Your task to perform on an android device: Go to Android settings Image 0: 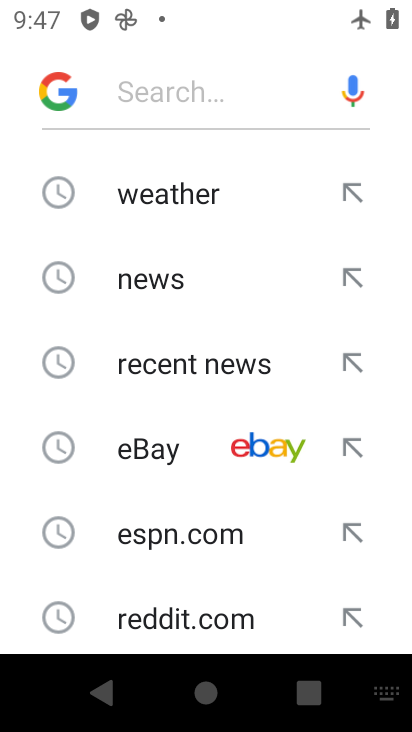
Step 0: press home button
Your task to perform on an android device: Go to Android settings Image 1: 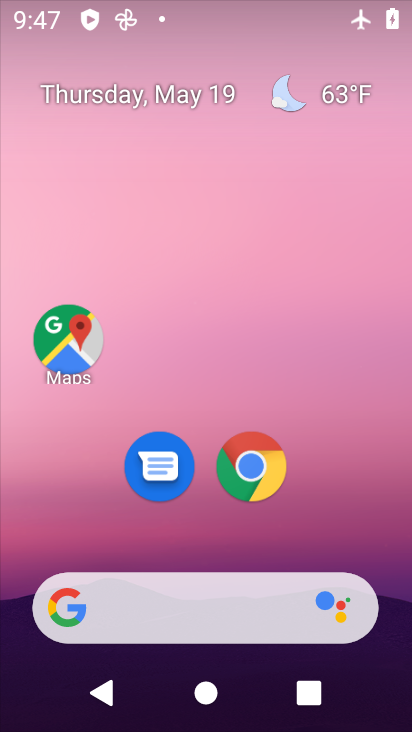
Step 1: drag from (380, 629) to (305, 81)
Your task to perform on an android device: Go to Android settings Image 2: 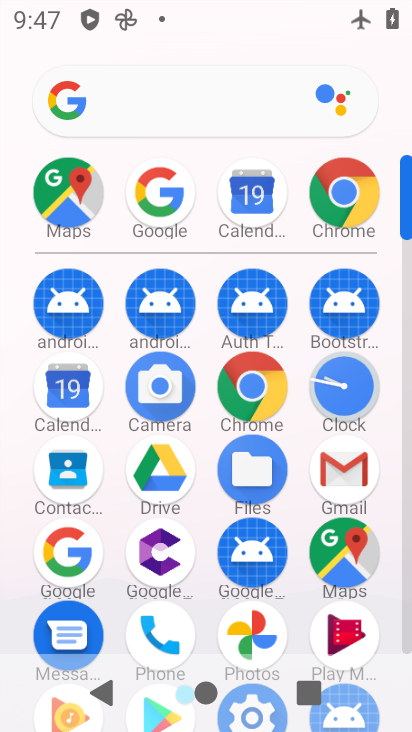
Step 2: drag from (225, 641) to (225, 171)
Your task to perform on an android device: Go to Android settings Image 3: 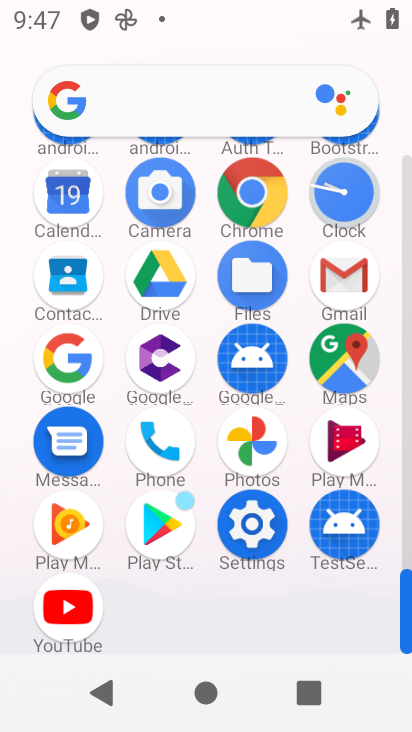
Step 3: click (276, 541)
Your task to perform on an android device: Go to Android settings Image 4: 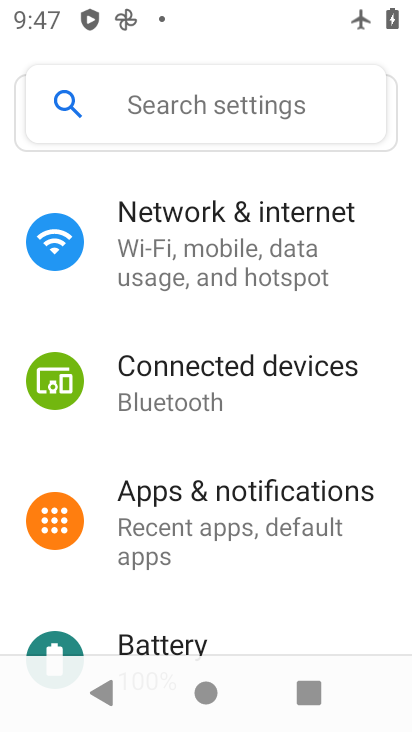
Step 4: drag from (201, 623) to (225, 96)
Your task to perform on an android device: Go to Android settings Image 5: 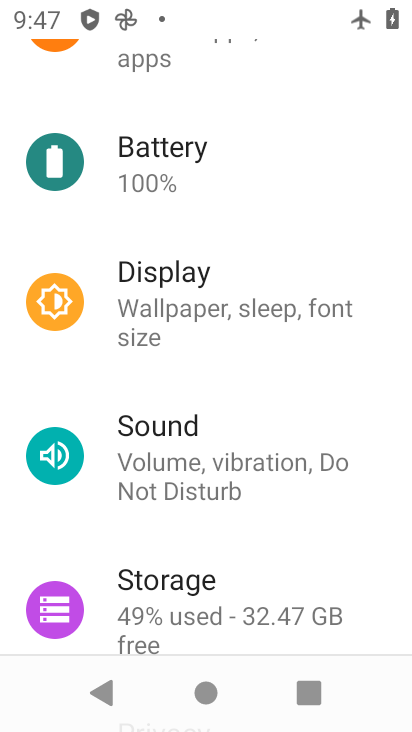
Step 5: drag from (200, 585) to (259, 80)
Your task to perform on an android device: Go to Android settings Image 6: 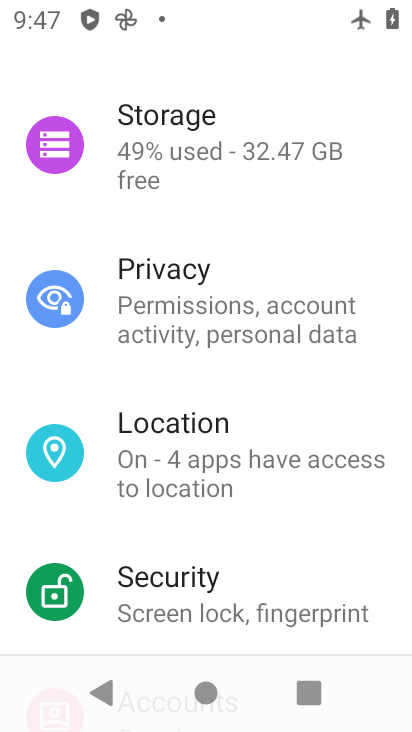
Step 6: drag from (212, 588) to (293, 108)
Your task to perform on an android device: Go to Android settings Image 7: 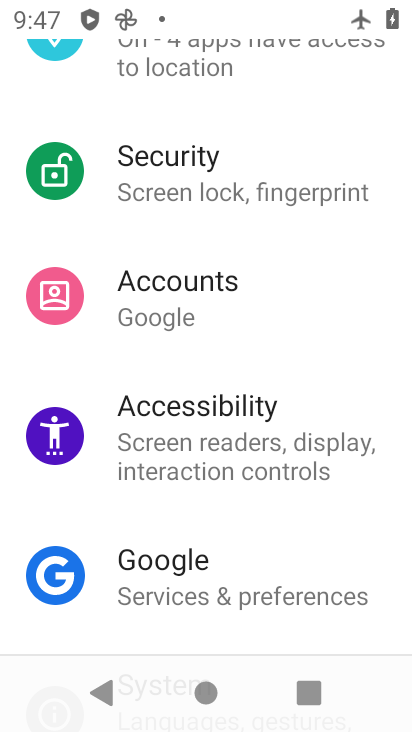
Step 7: drag from (122, 622) to (161, 40)
Your task to perform on an android device: Go to Android settings Image 8: 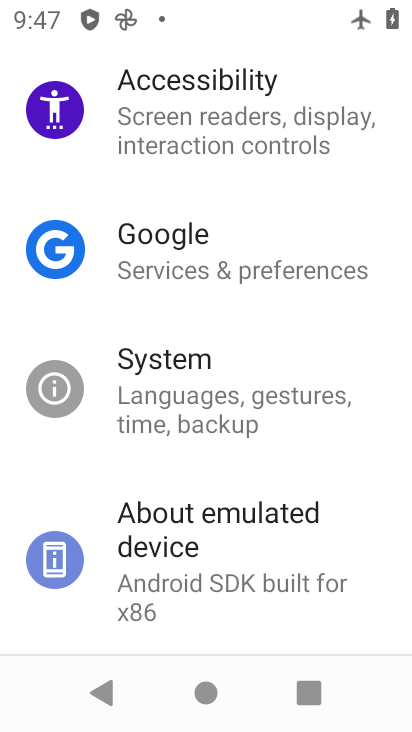
Step 8: click (182, 574)
Your task to perform on an android device: Go to Android settings Image 9: 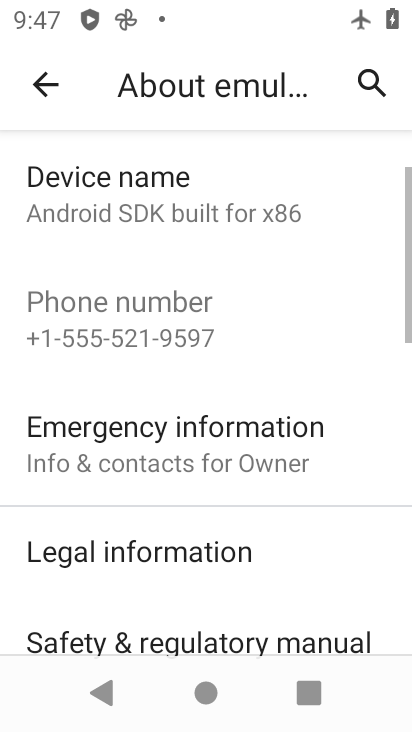
Step 9: drag from (182, 574) to (246, 133)
Your task to perform on an android device: Go to Android settings Image 10: 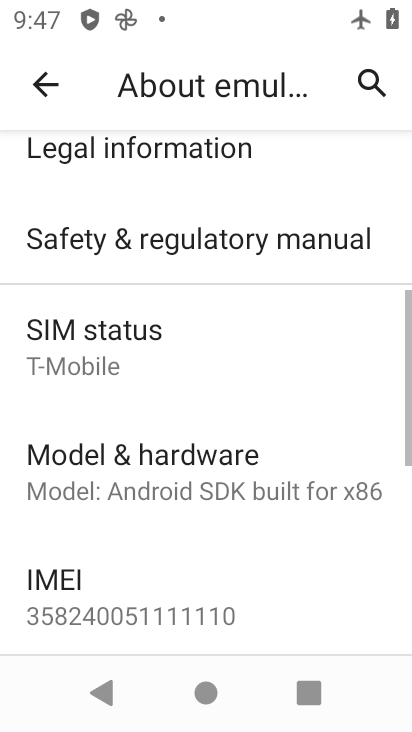
Step 10: drag from (196, 528) to (236, 135)
Your task to perform on an android device: Go to Android settings Image 11: 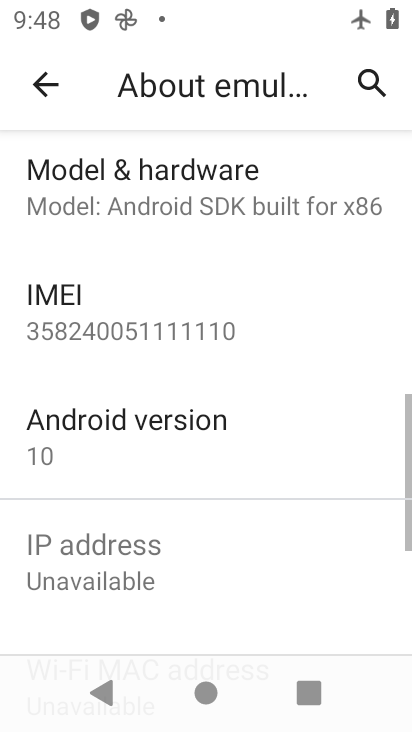
Step 11: click (183, 473)
Your task to perform on an android device: Go to Android settings Image 12: 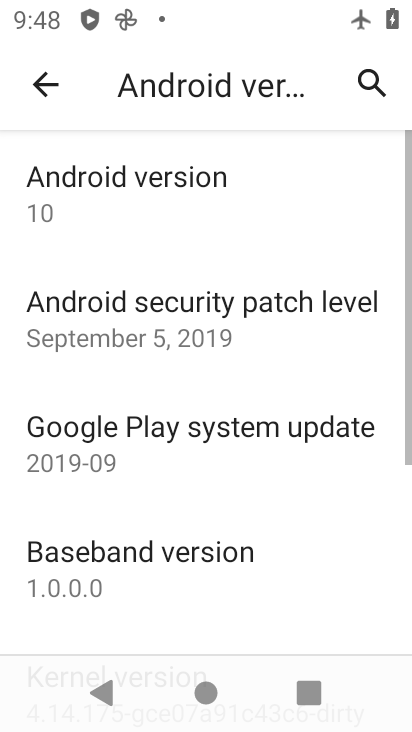
Step 12: task complete